Your task to perform on an android device: Add usb-c to usb-a to the cart on bestbuy.com, then select checkout. Image 0: 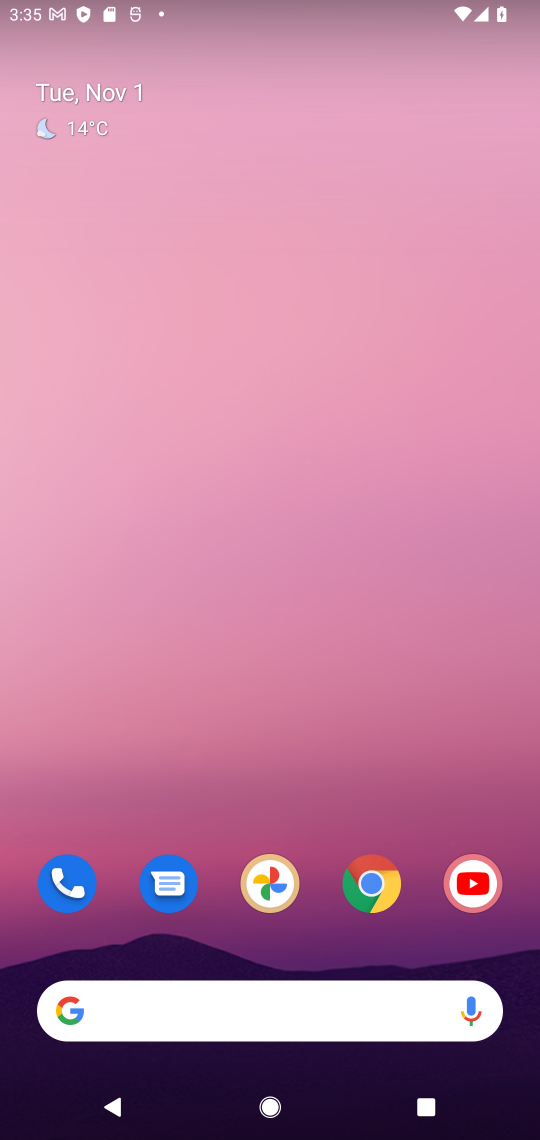
Step 0: click (360, 892)
Your task to perform on an android device: Add usb-c to usb-a to the cart on bestbuy.com, then select checkout. Image 1: 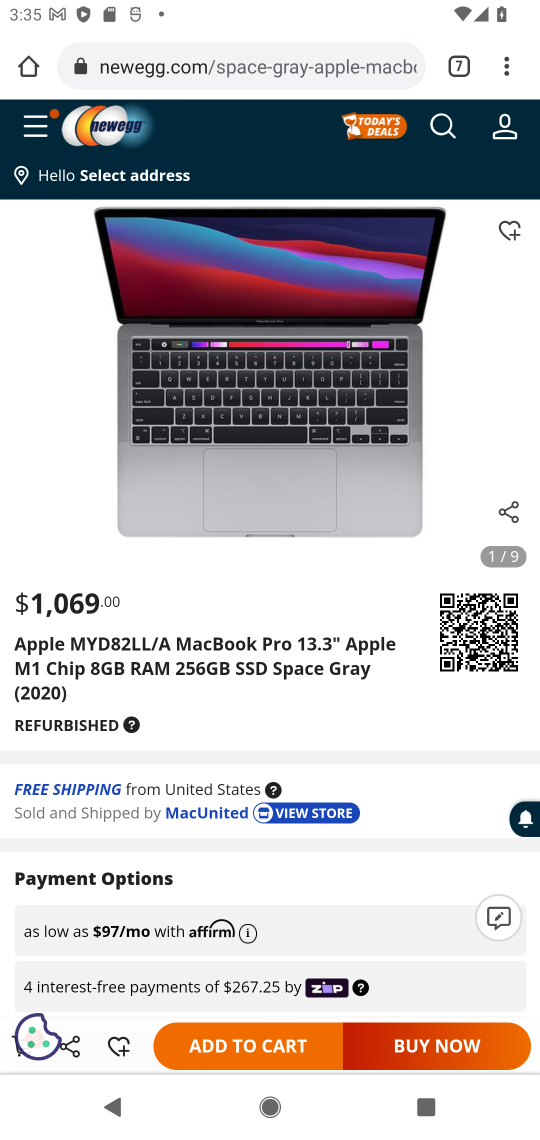
Step 1: click (450, 73)
Your task to perform on an android device: Add usb-c to usb-a to the cart on bestbuy.com, then select checkout. Image 2: 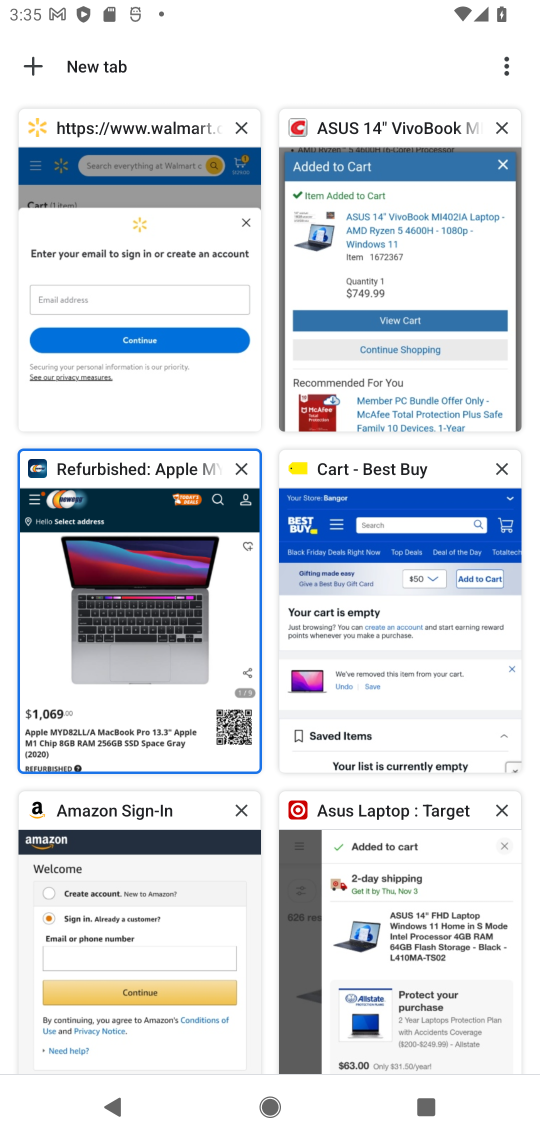
Step 2: click (382, 549)
Your task to perform on an android device: Add usb-c to usb-a to the cart on bestbuy.com, then select checkout. Image 3: 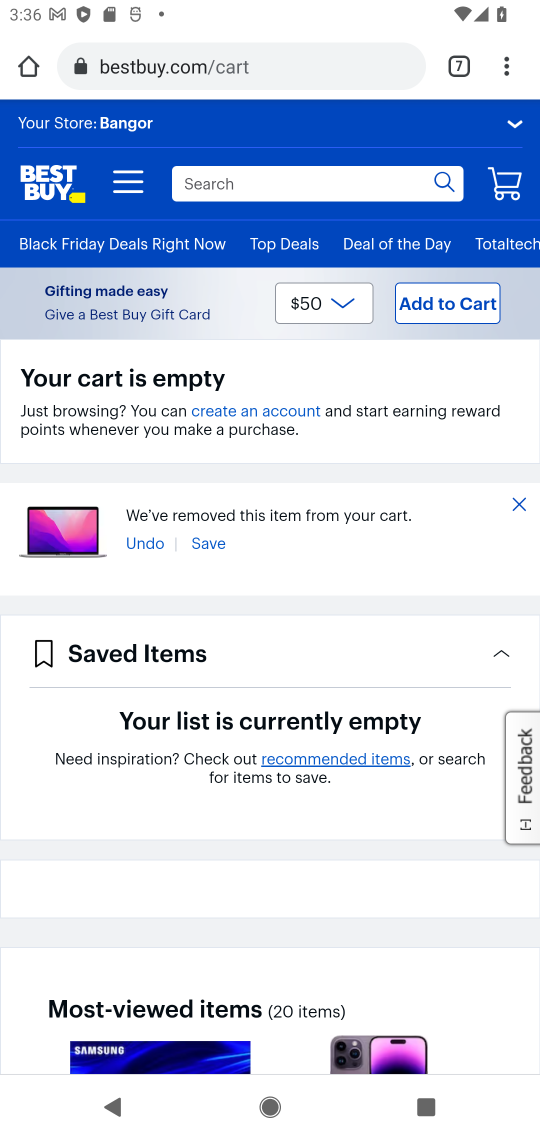
Step 3: click (265, 172)
Your task to perform on an android device: Add usb-c to usb-a to the cart on bestbuy.com, then select checkout. Image 4: 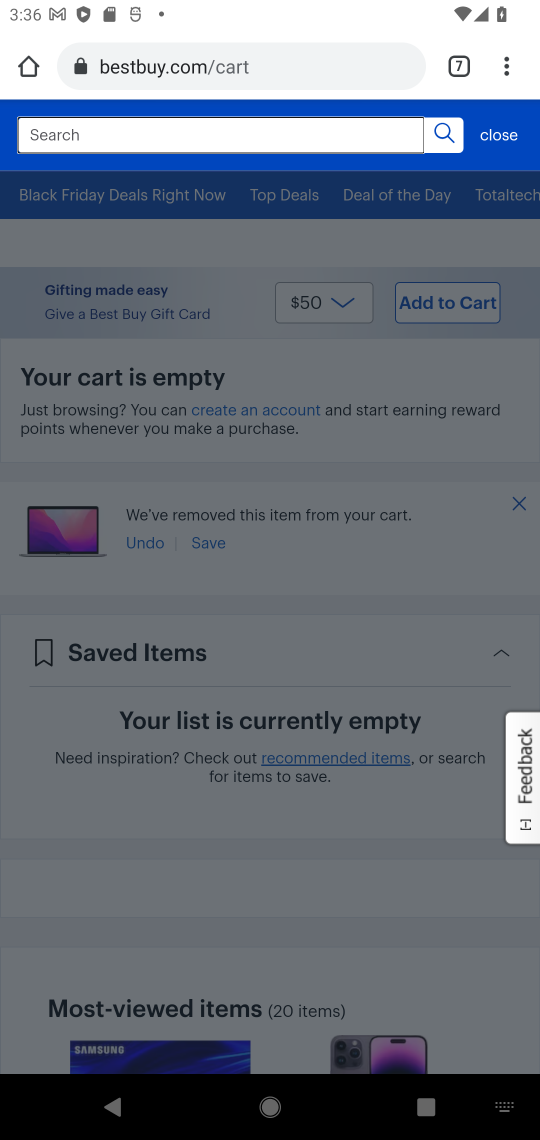
Step 4: type "usb-c to usb-a"
Your task to perform on an android device: Add usb-c to usb-a to the cart on bestbuy.com, then select checkout. Image 5: 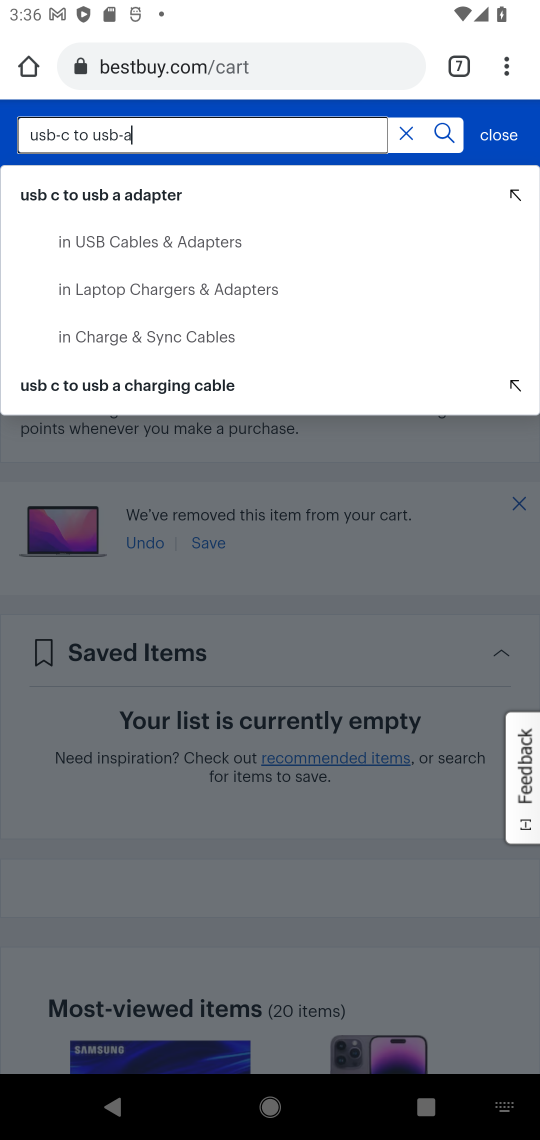
Step 5: click (115, 190)
Your task to perform on an android device: Add usb-c to usb-a to the cart on bestbuy.com, then select checkout. Image 6: 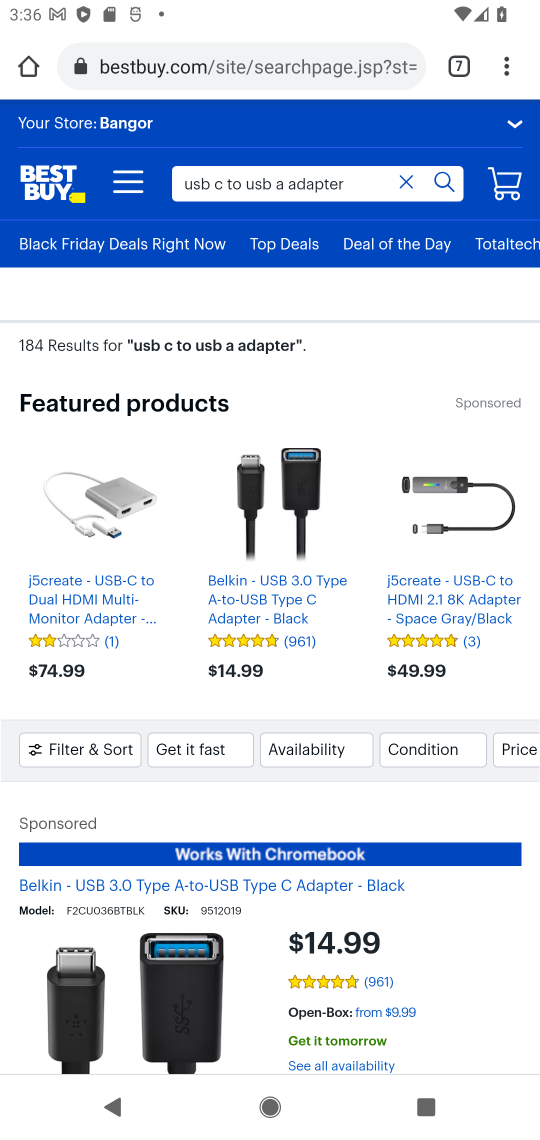
Step 6: click (398, 1049)
Your task to perform on an android device: Add usb-c to usb-a to the cart on bestbuy.com, then select checkout. Image 7: 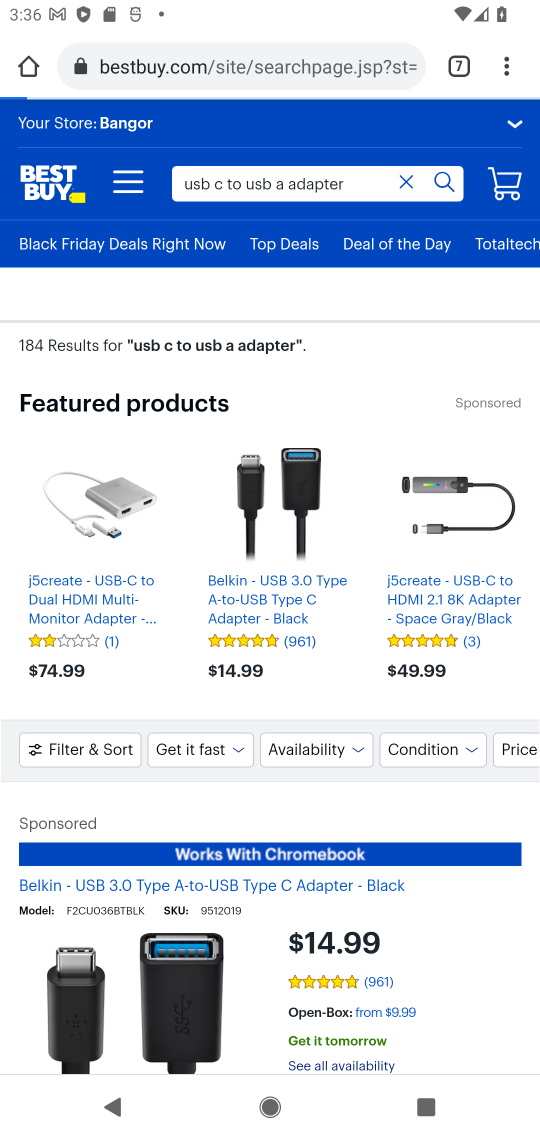
Step 7: drag from (398, 1049) to (472, 749)
Your task to perform on an android device: Add usb-c to usb-a to the cart on bestbuy.com, then select checkout. Image 8: 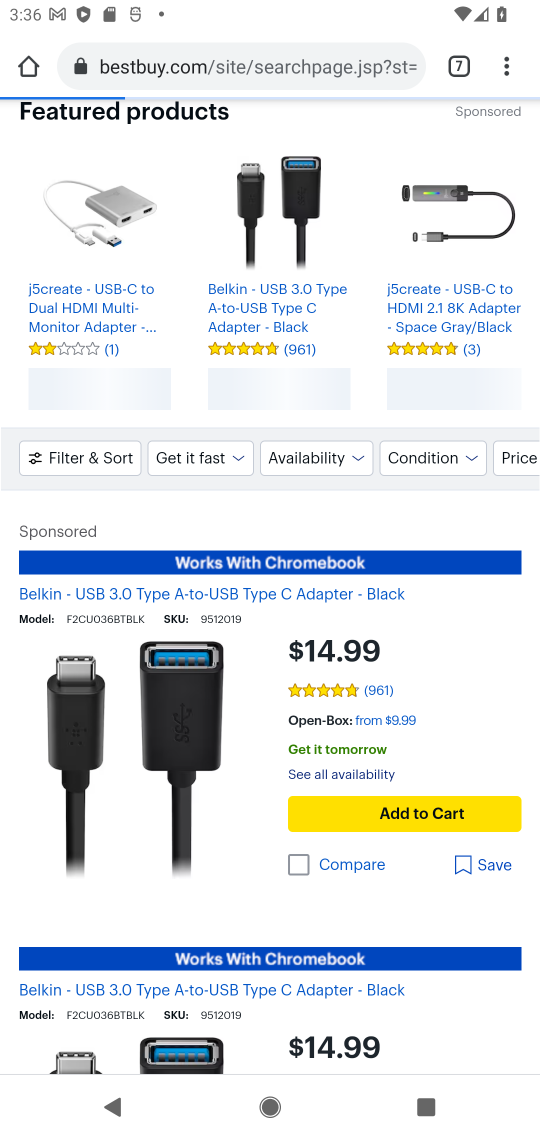
Step 8: click (420, 807)
Your task to perform on an android device: Add usb-c to usb-a to the cart on bestbuy.com, then select checkout. Image 9: 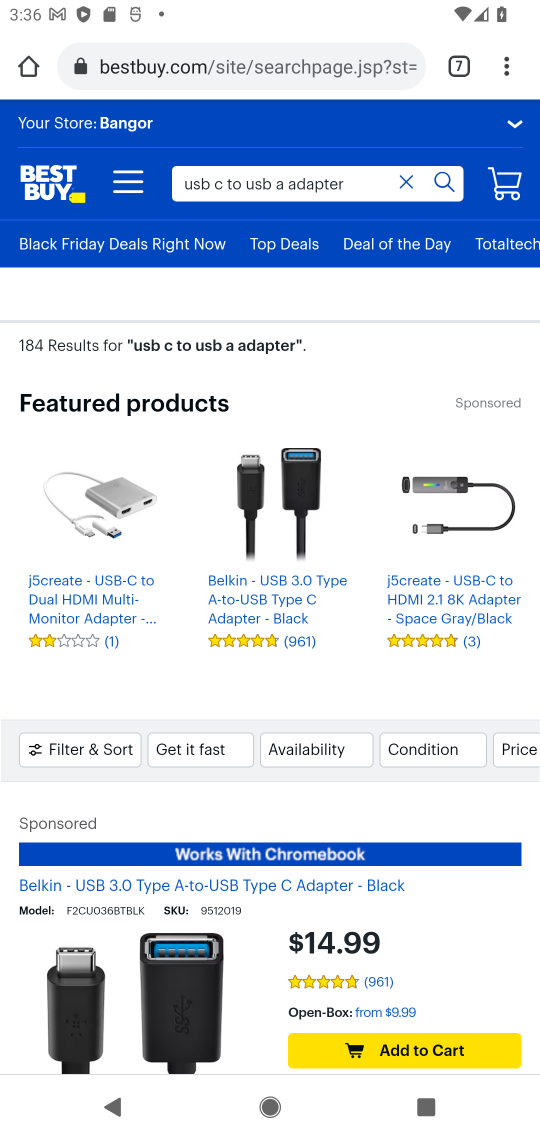
Step 9: task complete